Your task to perform on an android device: check android version Image 0: 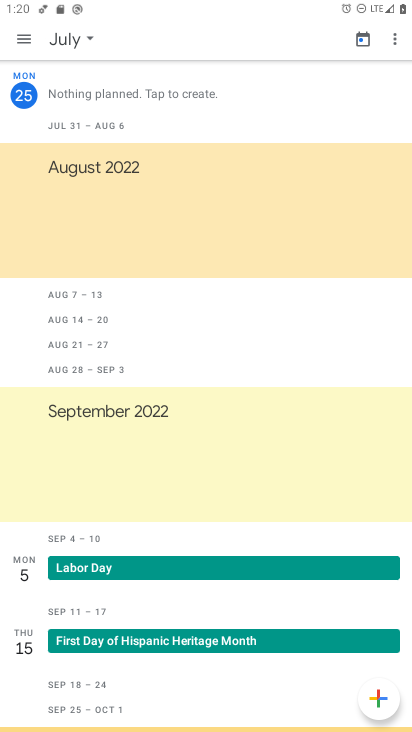
Step 0: press home button
Your task to perform on an android device: check android version Image 1: 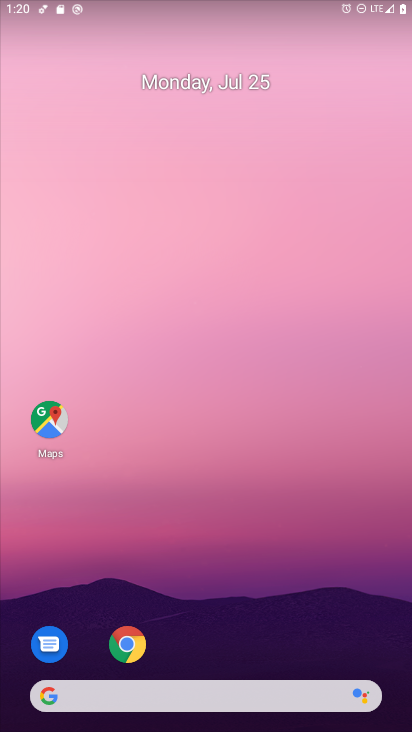
Step 1: drag from (217, 625) to (146, 59)
Your task to perform on an android device: check android version Image 2: 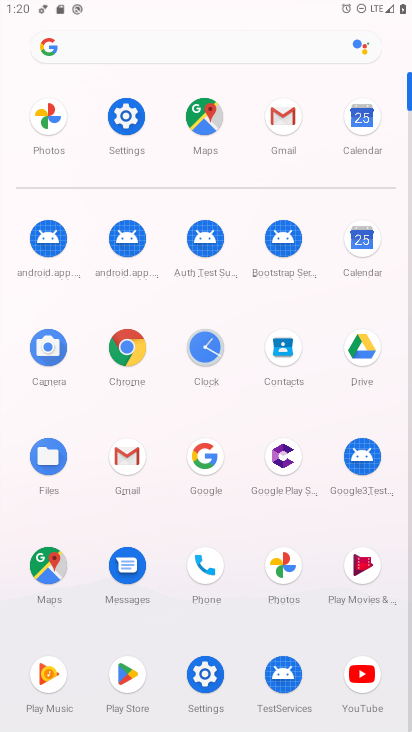
Step 2: click (125, 105)
Your task to perform on an android device: check android version Image 3: 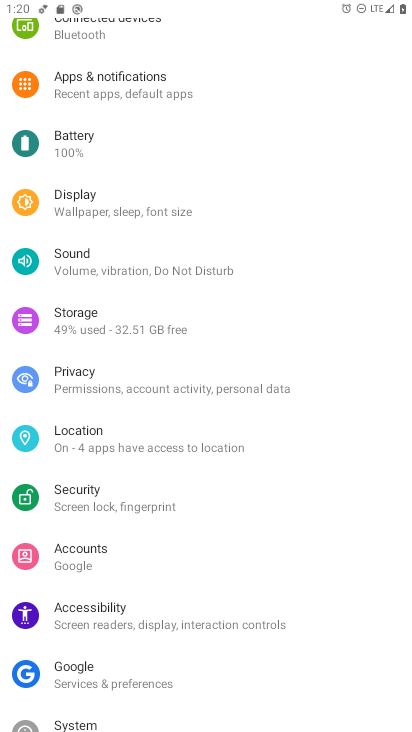
Step 3: click (94, 718)
Your task to perform on an android device: check android version Image 4: 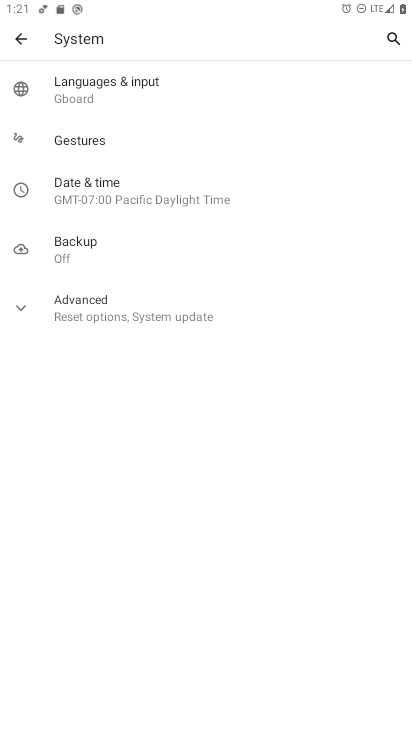
Step 4: task complete